Your task to perform on an android device: Open calendar and show me the third week of next month Image 0: 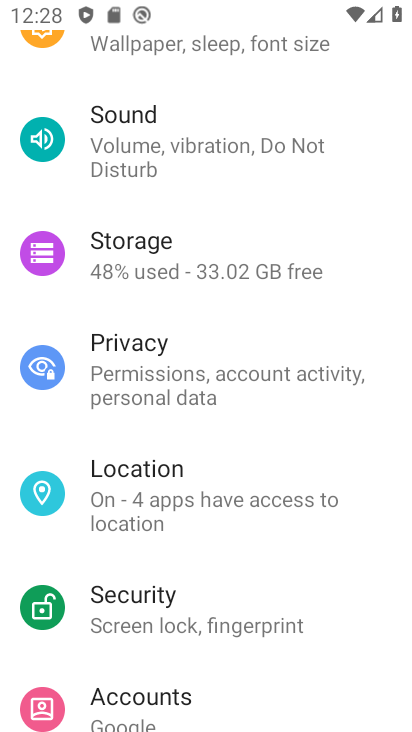
Step 0: press back button
Your task to perform on an android device: Open calendar and show me the third week of next month Image 1: 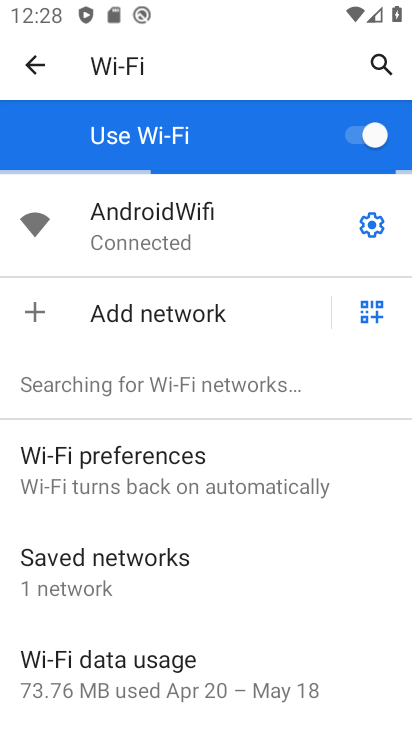
Step 1: press back button
Your task to perform on an android device: Open calendar and show me the third week of next month Image 2: 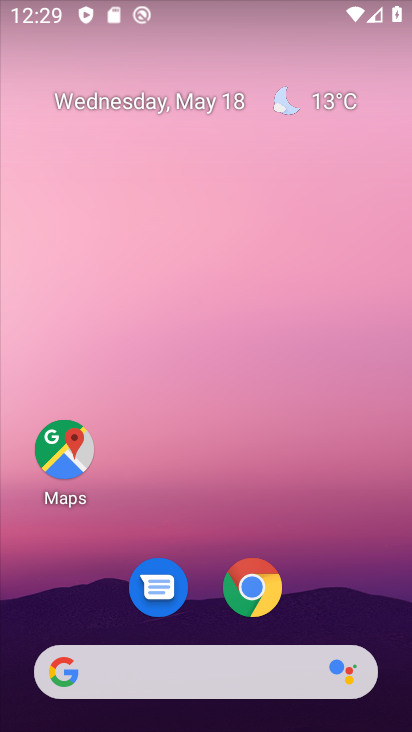
Step 2: drag from (221, 527) to (321, 122)
Your task to perform on an android device: Open calendar and show me the third week of next month Image 3: 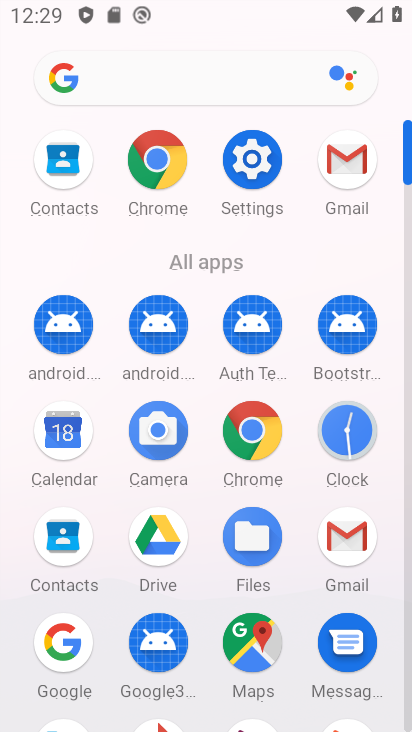
Step 3: click (43, 438)
Your task to perform on an android device: Open calendar and show me the third week of next month Image 4: 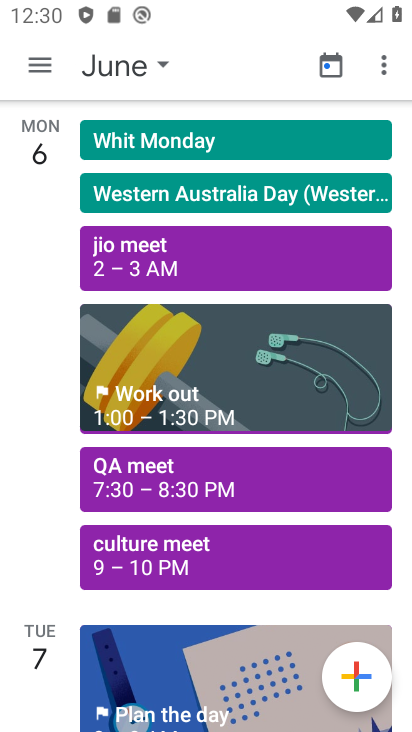
Step 4: click (37, 59)
Your task to perform on an android device: Open calendar and show me the third week of next month Image 5: 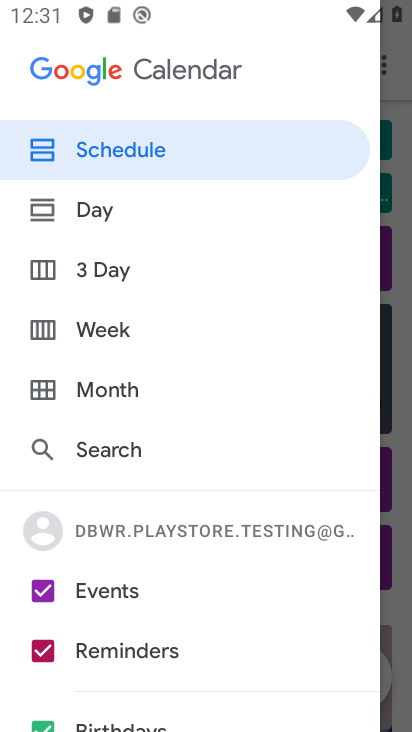
Step 5: click (228, 157)
Your task to perform on an android device: Open calendar and show me the third week of next month Image 6: 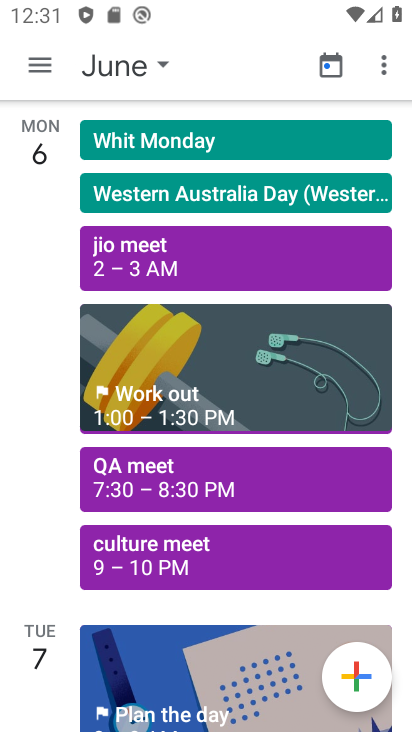
Step 6: click (160, 65)
Your task to perform on an android device: Open calendar and show me the third week of next month Image 7: 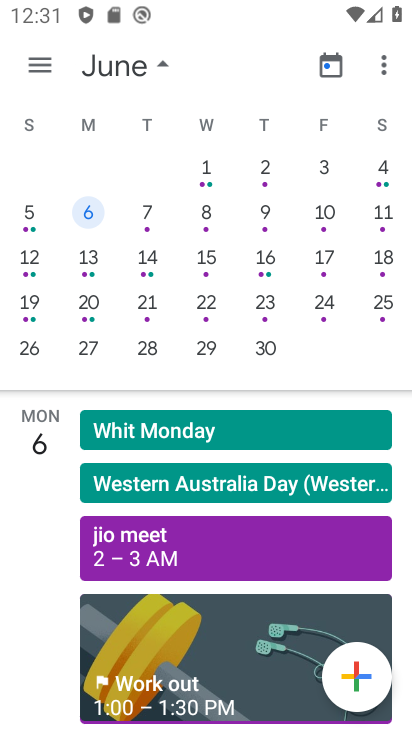
Step 7: click (99, 265)
Your task to perform on an android device: Open calendar and show me the third week of next month Image 8: 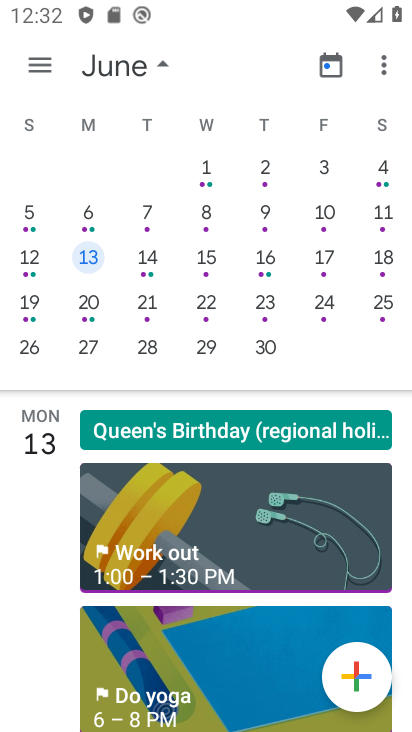
Step 8: task complete